Your task to perform on an android device: toggle location history Image 0: 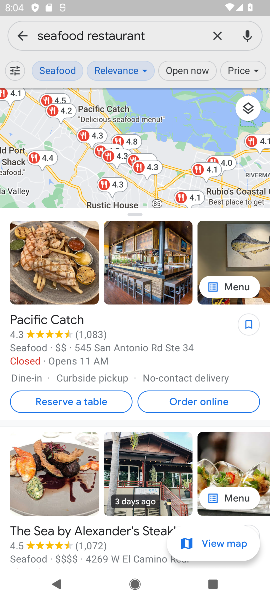
Step 0: click (22, 32)
Your task to perform on an android device: toggle location history Image 1: 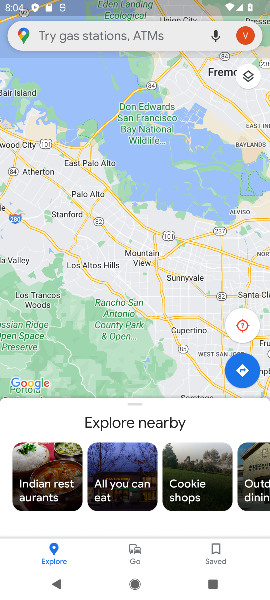
Step 1: press home button
Your task to perform on an android device: toggle location history Image 2: 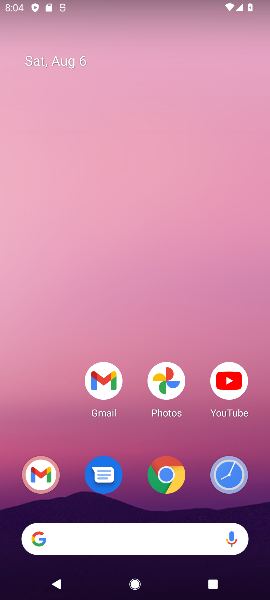
Step 2: drag from (136, 458) to (168, 39)
Your task to perform on an android device: toggle location history Image 3: 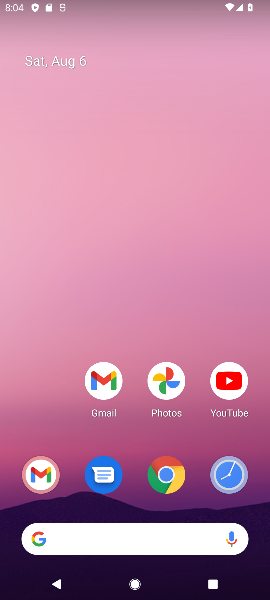
Step 3: drag from (167, 149) to (173, 52)
Your task to perform on an android device: toggle location history Image 4: 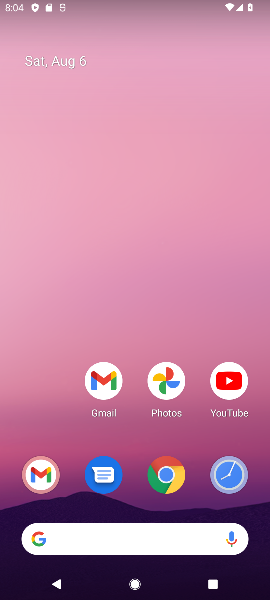
Step 4: drag from (136, 445) to (173, 73)
Your task to perform on an android device: toggle location history Image 5: 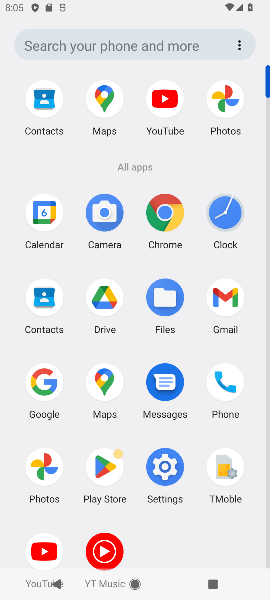
Step 5: click (170, 463)
Your task to perform on an android device: toggle location history Image 6: 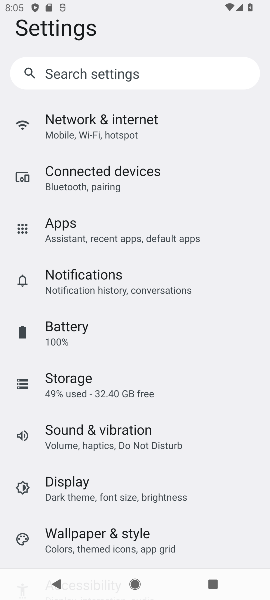
Step 6: drag from (132, 473) to (130, 202)
Your task to perform on an android device: toggle location history Image 7: 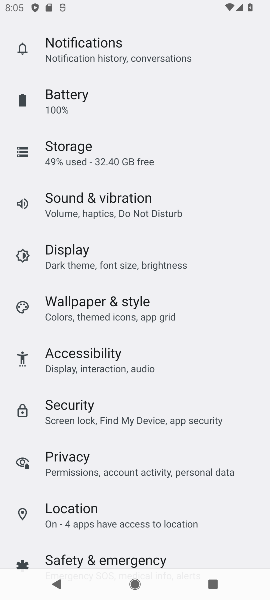
Step 7: drag from (111, 479) to (137, 303)
Your task to perform on an android device: toggle location history Image 8: 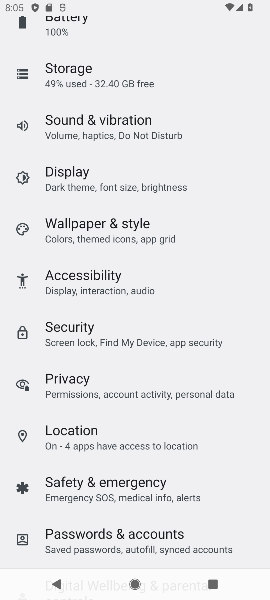
Step 8: click (98, 438)
Your task to perform on an android device: toggle location history Image 9: 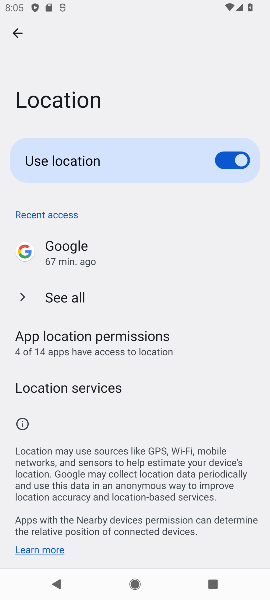
Step 9: drag from (131, 477) to (151, 150)
Your task to perform on an android device: toggle location history Image 10: 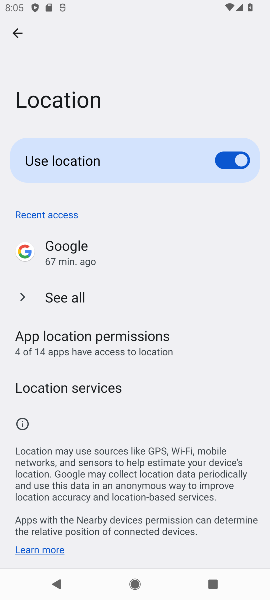
Step 10: drag from (123, 487) to (148, 197)
Your task to perform on an android device: toggle location history Image 11: 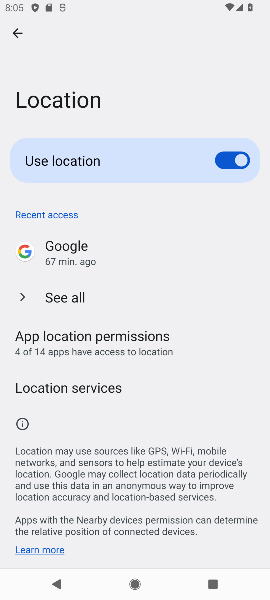
Step 11: drag from (150, 470) to (136, 219)
Your task to perform on an android device: toggle location history Image 12: 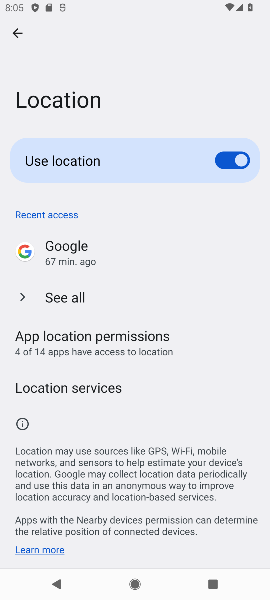
Step 12: click (106, 376)
Your task to perform on an android device: toggle location history Image 13: 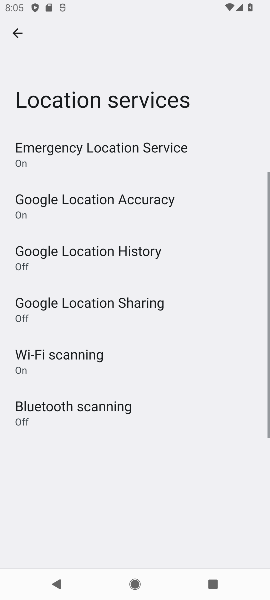
Step 13: click (131, 259)
Your task to perform on an android device: toggle location history Image 14: 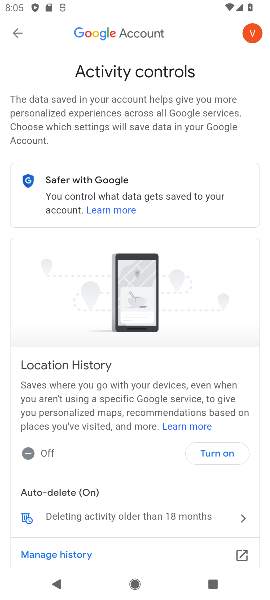
Step 14: click (214, 440)
Your task to perform on an android device: toggle location history Image 15: 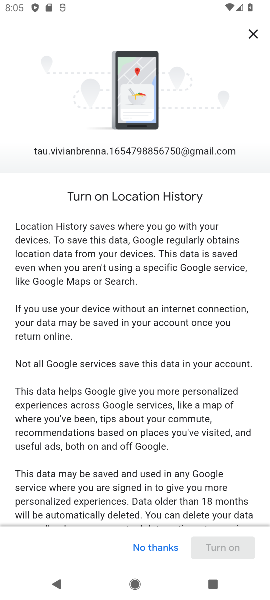
Step 15: drag from (191, 460) to (223, 100)
Your task to perform on an android device: toggle location history Image 16: 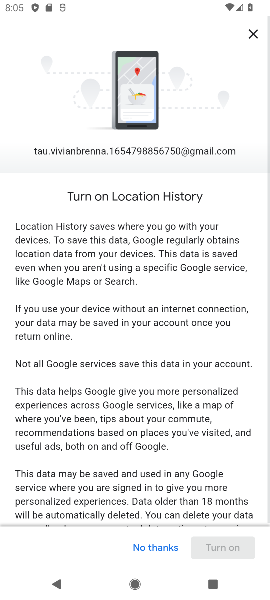
Step 16: drag from (200, 494) to (196, 211)
Your task to perform on an android device: toggle location history Image 17: 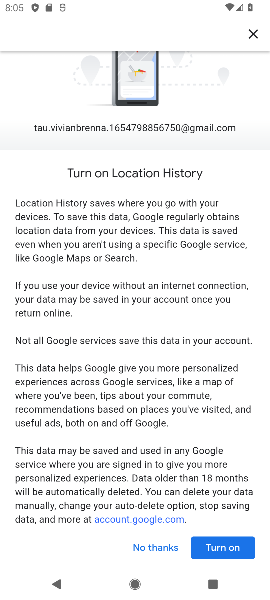
Step 17: click (217, 548)
Your task to perform on an android device: toggle location history Image 18: 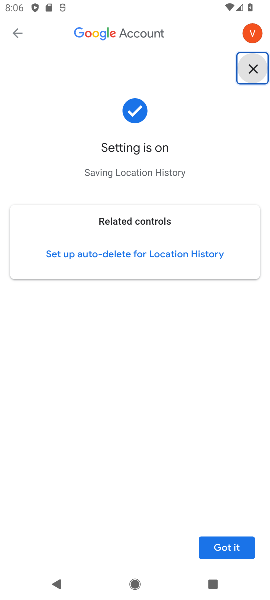
Step 18: task complete